Your task to perform on an android device: turn smart compose on in the gmail app Image 0: 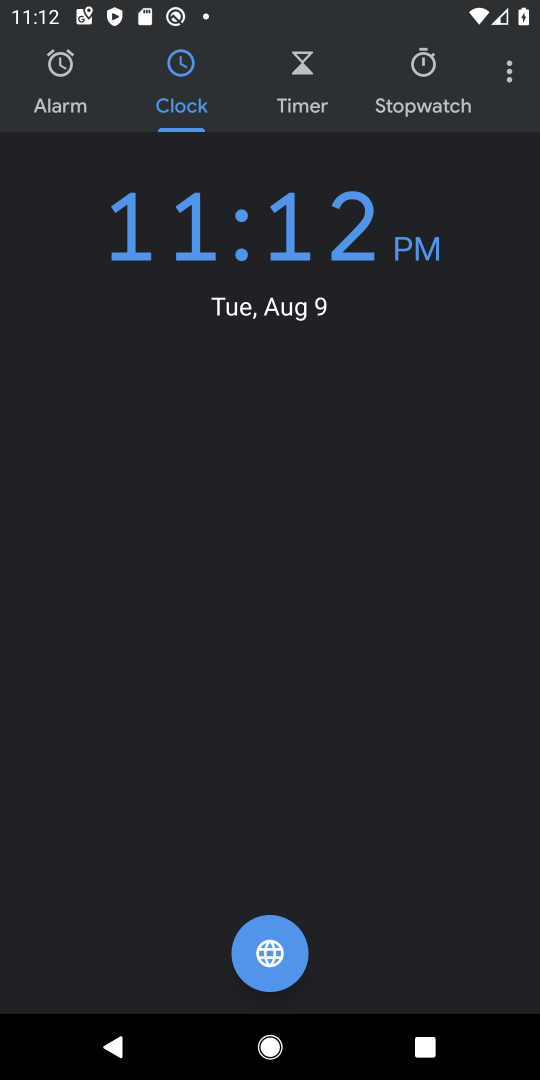
Step 0: press home button
Your task to perform on an android device: turn smart compose on in the gmail app Image 1: 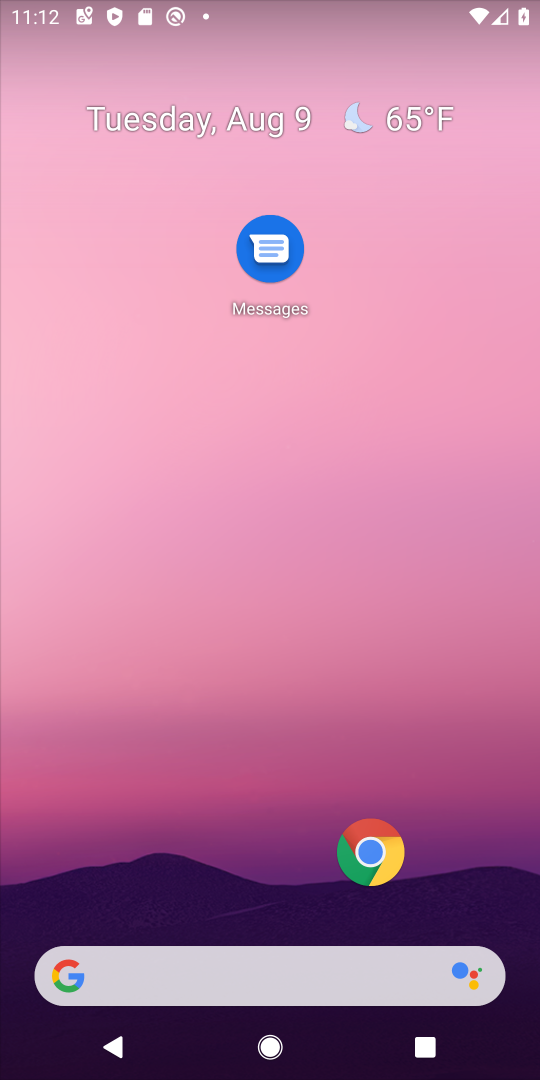
Step 1: drag from (265, 887) to (315, 134)
Your task to perform on an android device: turn smart compose on in the gmail app Image 2: 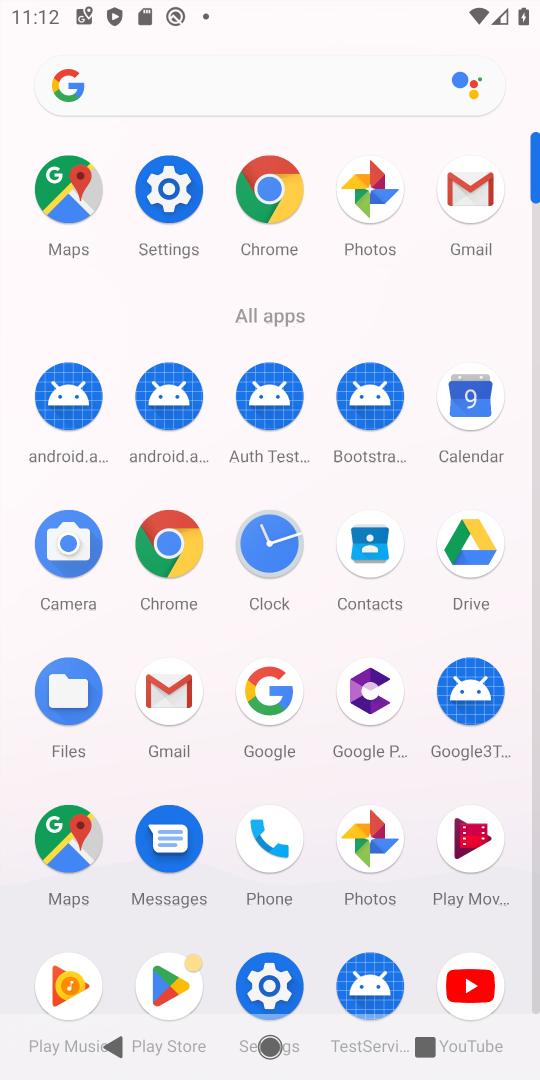
Step 2: click (466, 202)
Your task to perform on an android device: turn smart compose on in the gmail app Image 3: 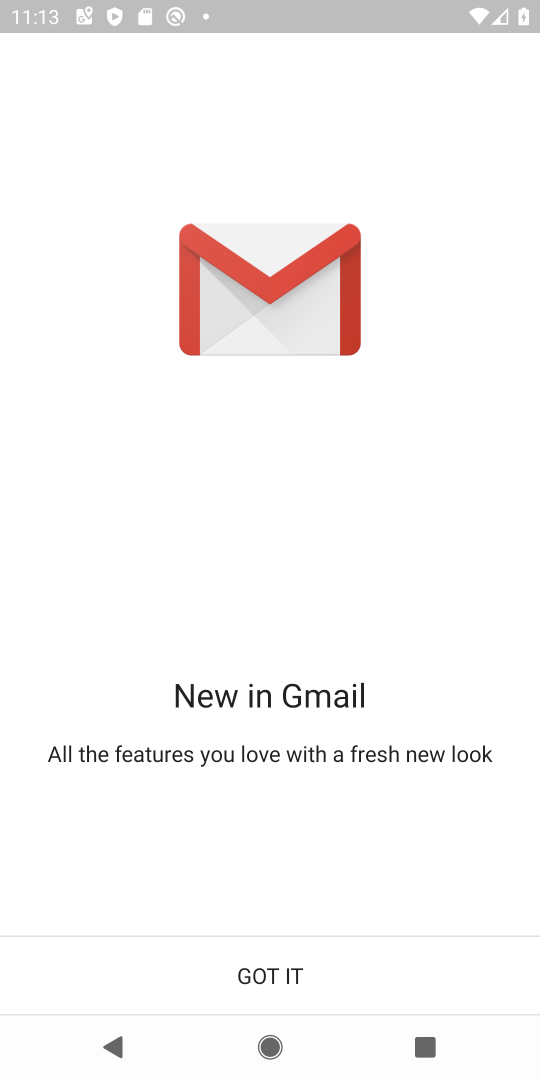
Step 3: click (239, 989)
Your task to perform on an android device: turn smart compose on in the gmail app Image 4: 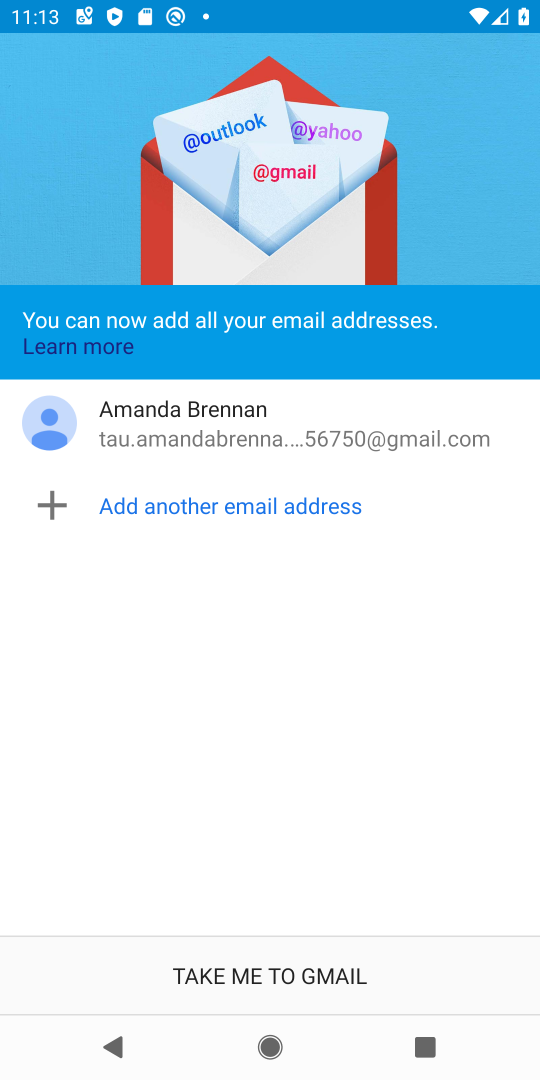
Step 4: click (239, 989)
Your task to perform on an android device: turn smart compose on in the gmail app Image 5: 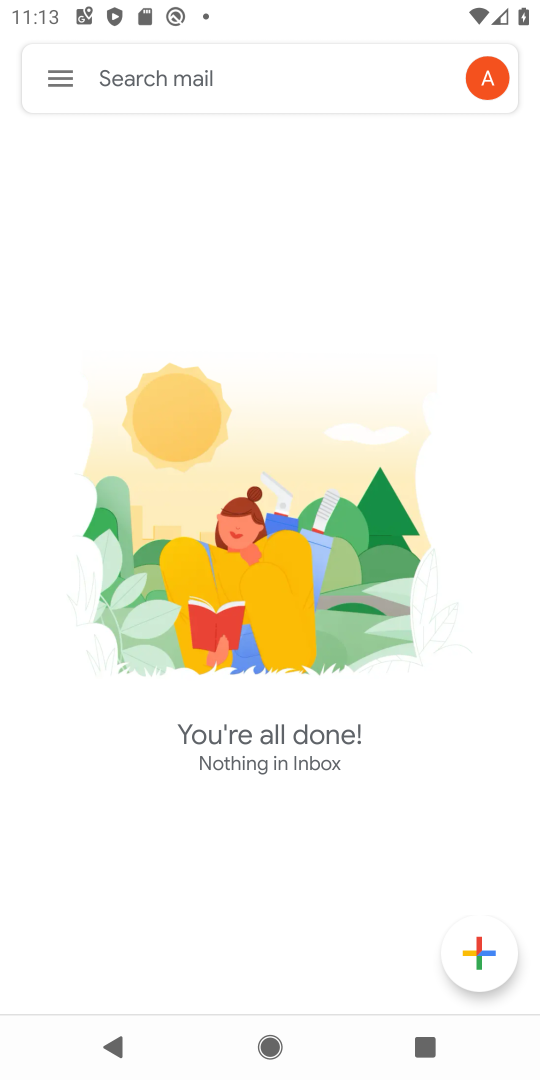
Step 5: click (54, 69)
Your task to perform on an android device: turn smart compose on in the gmail app Image 6: 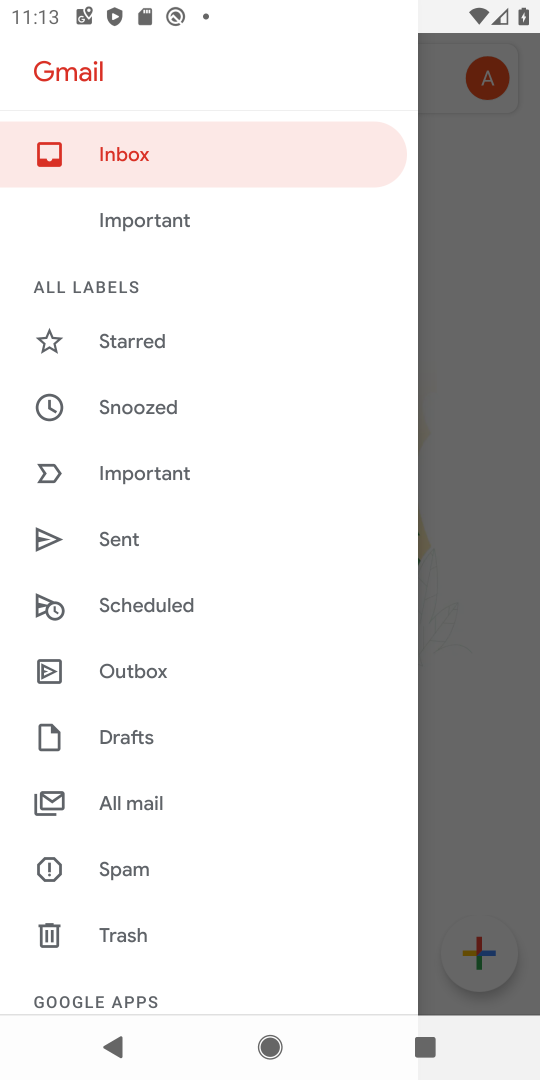
Step 6: drag from (243, 976) to (346, 339)
Your task to perform on an android device: turn smart compose on in the gmail app Image 7: 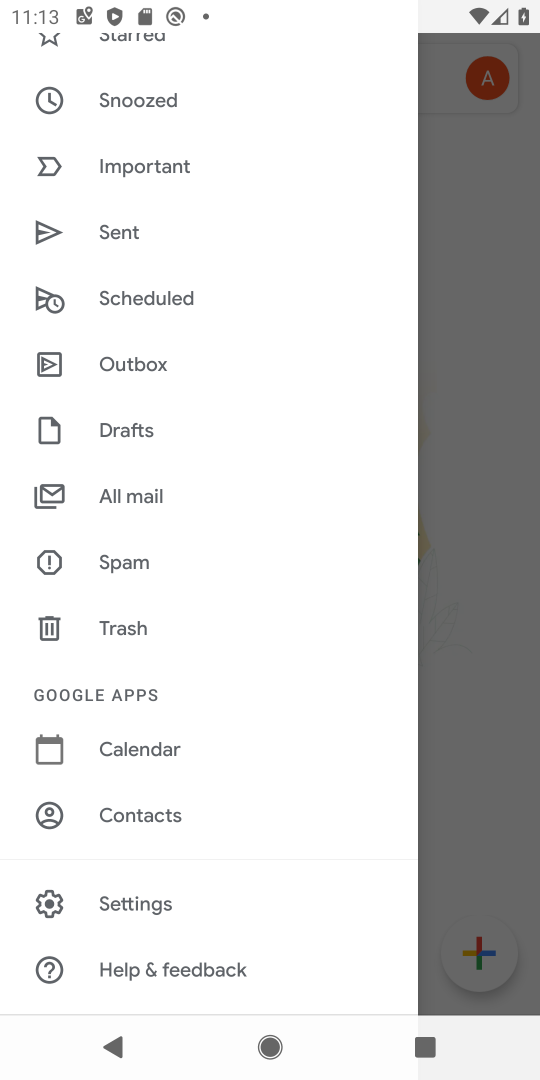
Step 7: click (122, 893)
Your task to perform on an android device: turn smart compose on in the gmail app Image 8: 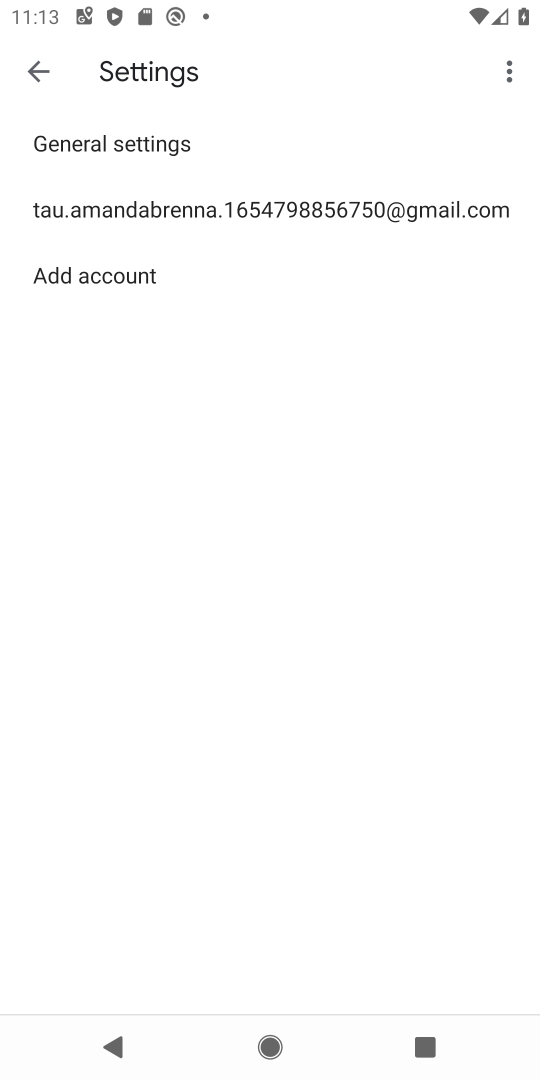
Step 8: click (335, 214)
Your task to perform on an android device: turn smart compose on in the gmail app Image 9: 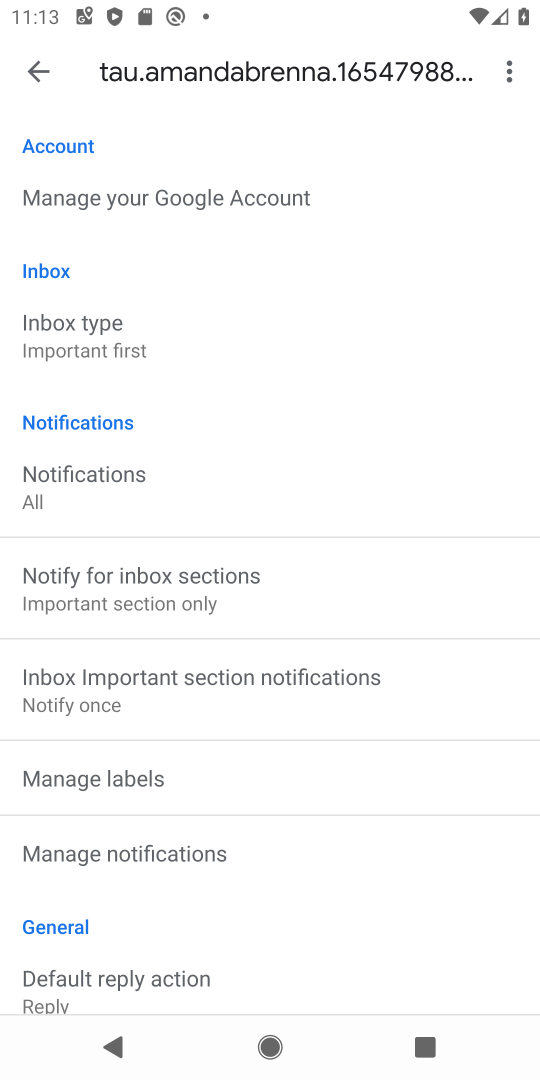
Step 9: task complete